Your task to perform on an android device: toggle priority inbox in the gmail app Image 0: 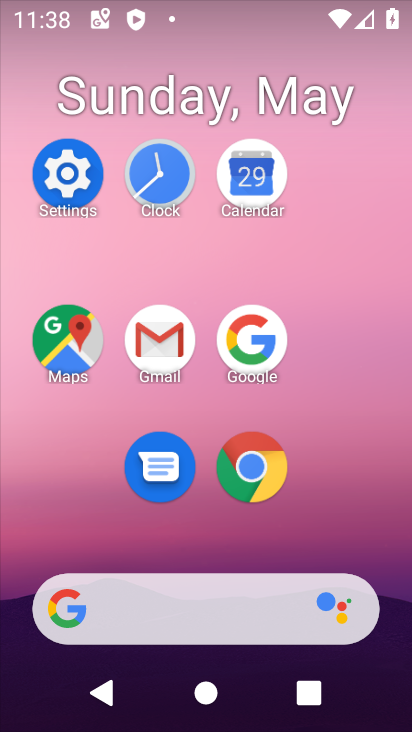
Step 0: click (193, 342)
Your task to perform on an android device: toggle priority inbox in the gmail app Image 1: 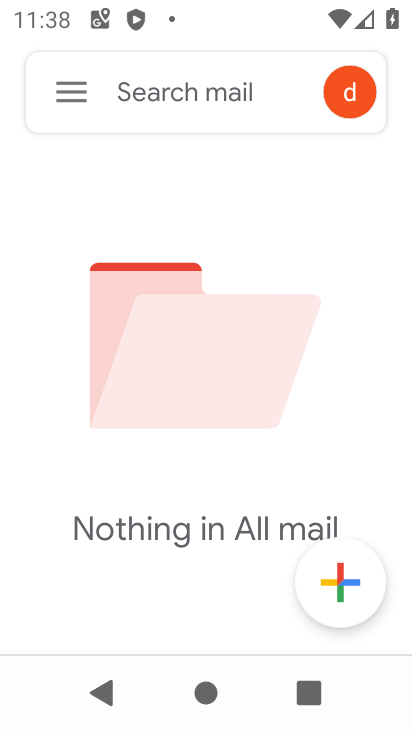
Step 1: click (83, 104)
Your task to perform on an android device: toggle priority inbox in the gmail app Image 2: 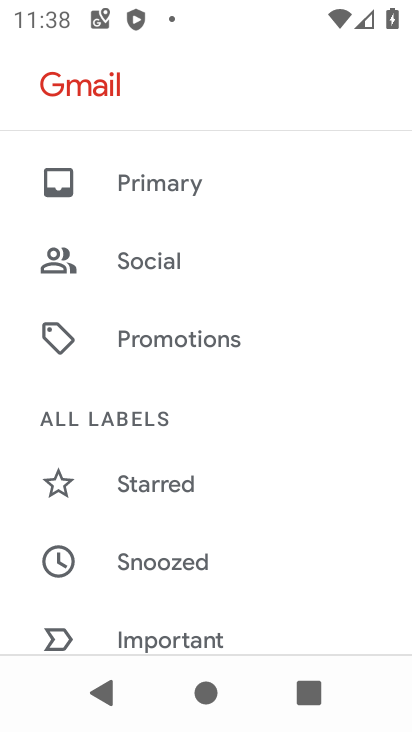
Step 2: drag from (163, 571) to (141, 204)
Your task to perform on an android device: toggle priority inbox in the gmail app Image 3: 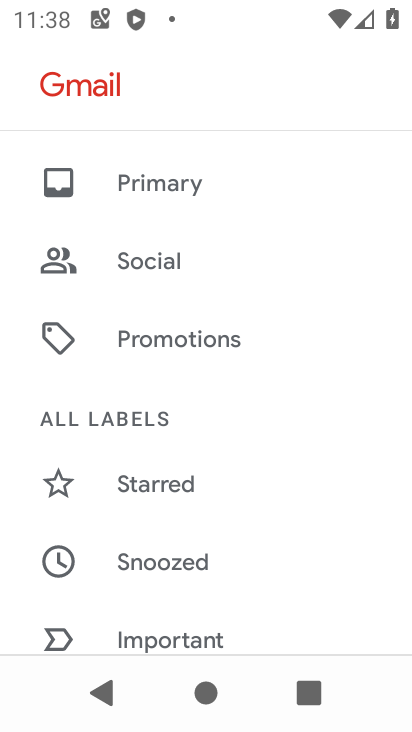
Step 3: drag from (237, 482) to (284, 225)
Your task to perform on an android device: toggle priority inbox in the gmail app Image 4: 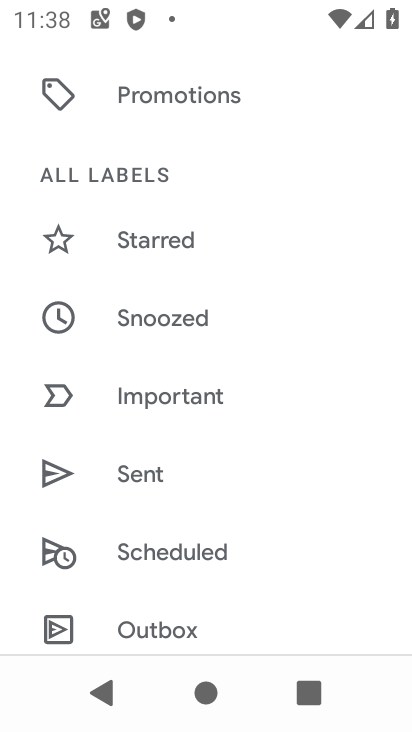
Step 4: drag from (260, 593) to (319, 198)
Your task to perform on an android device: toggle priority inbox in the gmail app Image 5: 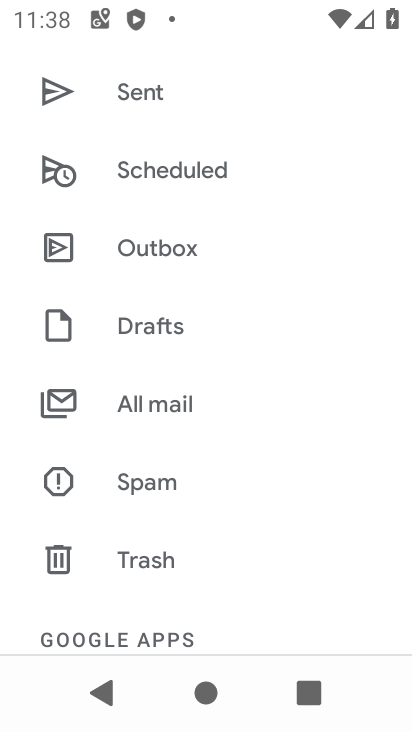
Step 5: drag from (216, 563) to (249, 263)
Your task to perform on an android device: toggle priority inbox in the gmail app Image 6: 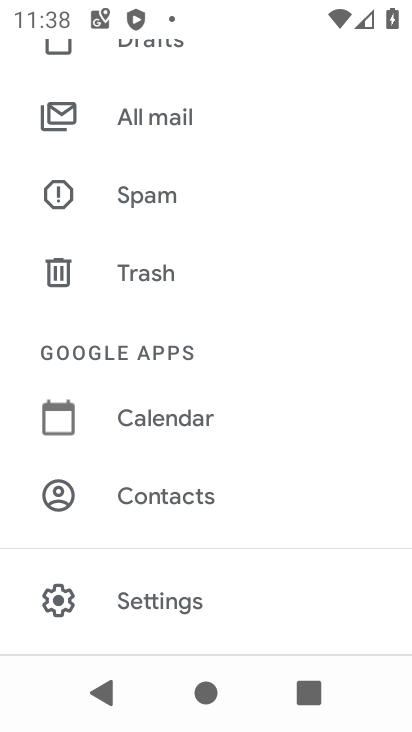
Step 6: click (211, 599)
Your task to perform on an android device: toggle priority inbox in the gmail app Image 7: 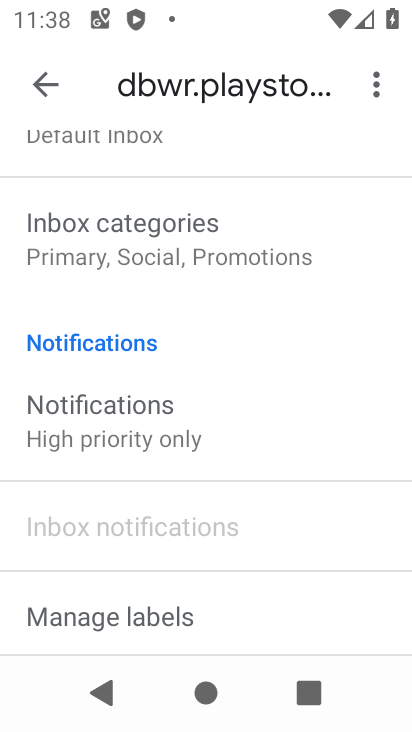
Step 7: click (188, 405)
Your task to perform on an android device: toggle priority inbox in the gmail app Image 8: 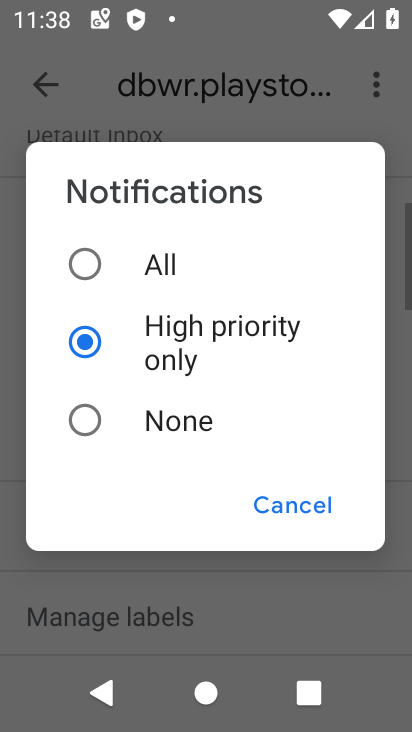
Step 8: click (149, 277)
Your task to perform on an android device: toggle priority inbox in the gmail app Image 9: 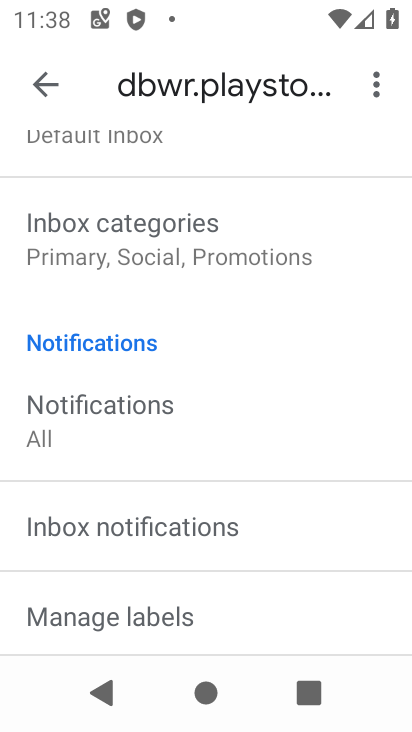
Step 9: task complete